Your task to perform on an android device: open a bookmark in the chrome app Image 0: 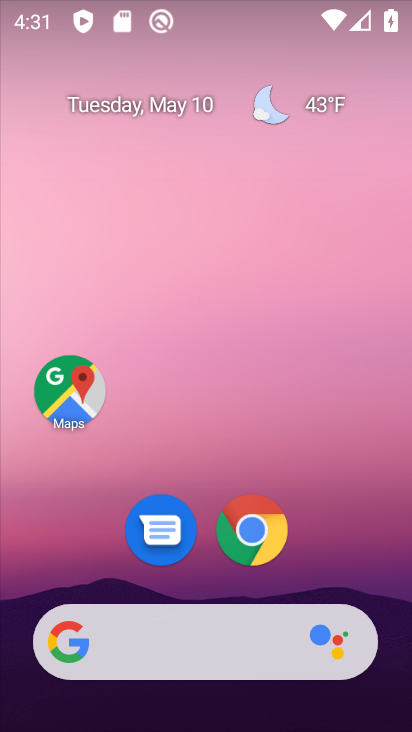
Step 0: click (253, 531)
Your task to perform on an android device: open a bookmark in the chrome app Image 1: 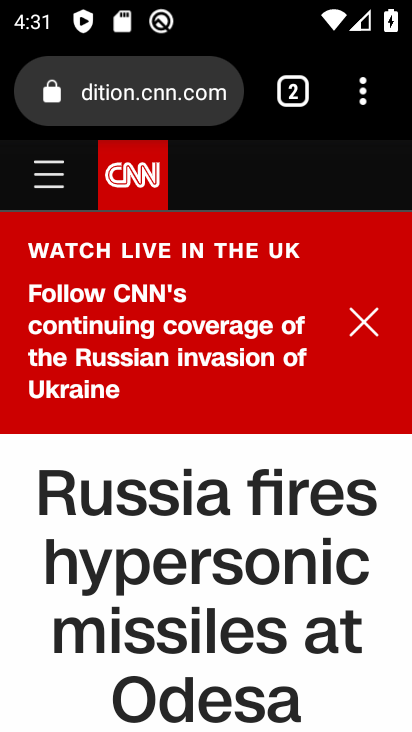
Step 1: click (373, 85)
Your task to perform on an android device: open a bookmark in the chrome app Image 2: 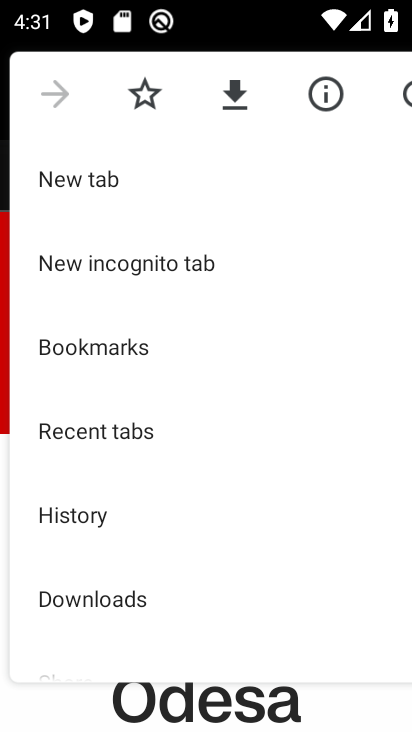
Step 2: click (166, 342)
Your task to perform on an android device: open a bookmark in the chrome app Image 3: 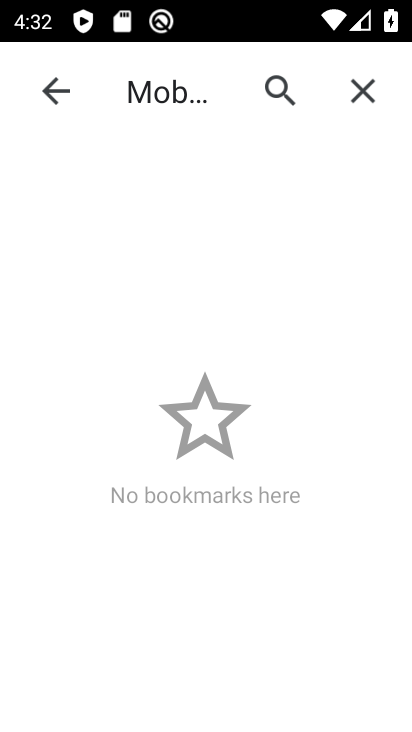
Step 3: task complete